Your task to perform on an android device: Go to eBay Image 0: 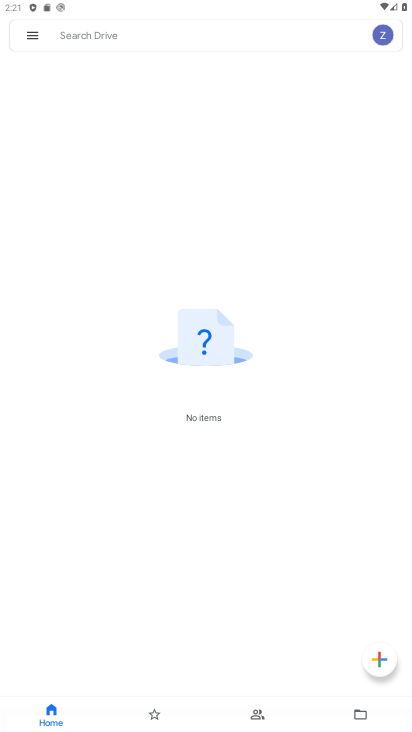
Step 0: press home button
Your task to perform on an android device: Go to eBay Image 1: 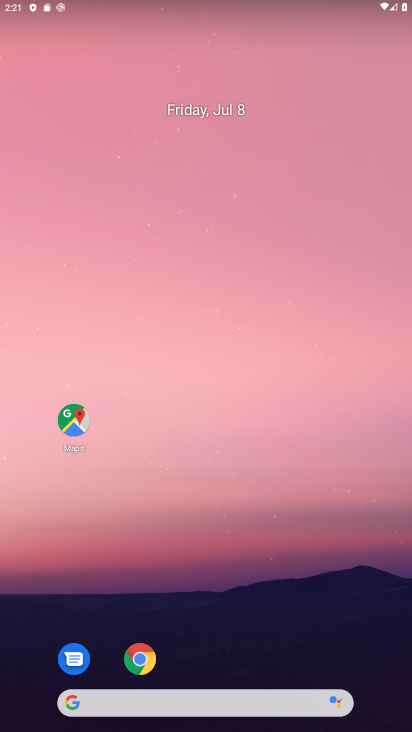
Step 1: click (133, 666)
Your task to perform on an android device: Go to eBay Image 2: 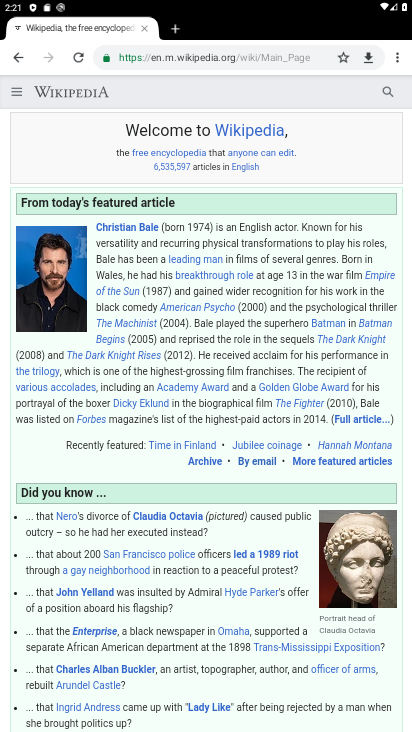
Step 2: click (134, 55)
Your task to perform on an android device: Go to eBay Image 3: 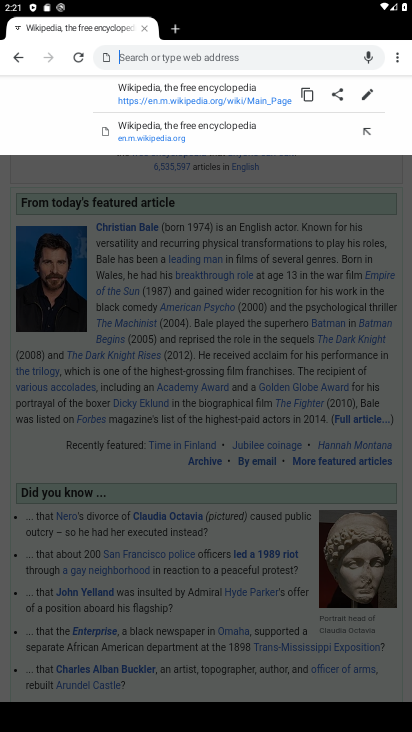
Step 3: type "ebay"
Your task to perform on an android device: Go to eBay Image 4: 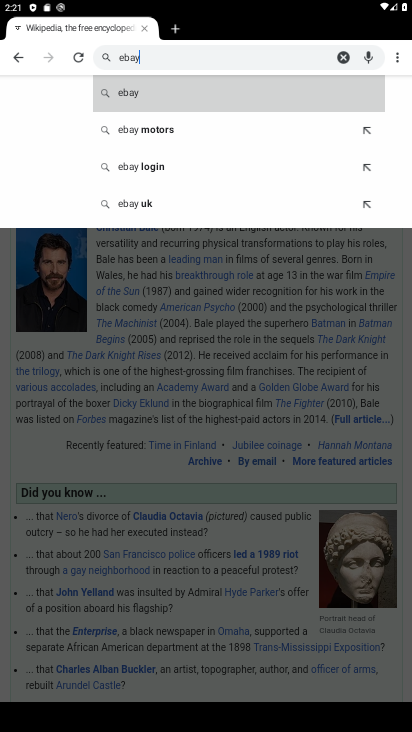
Step 4: click (137, 92)
Your task to perform on an android device: Go to eBay Image 5: 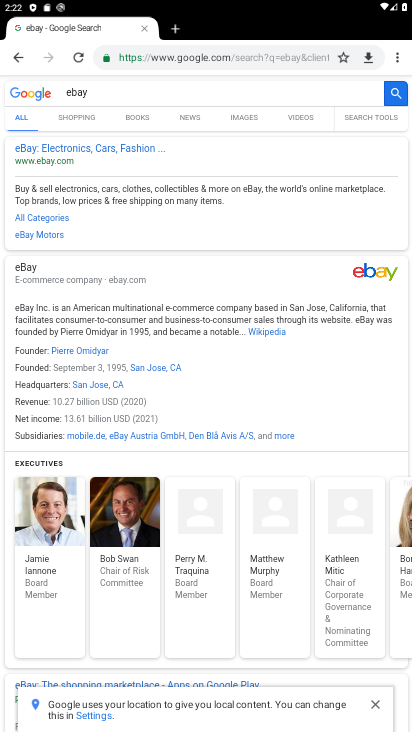
Step 5: click (129, 145)
Your task to perform on an android device: Go to eBay Image 6: 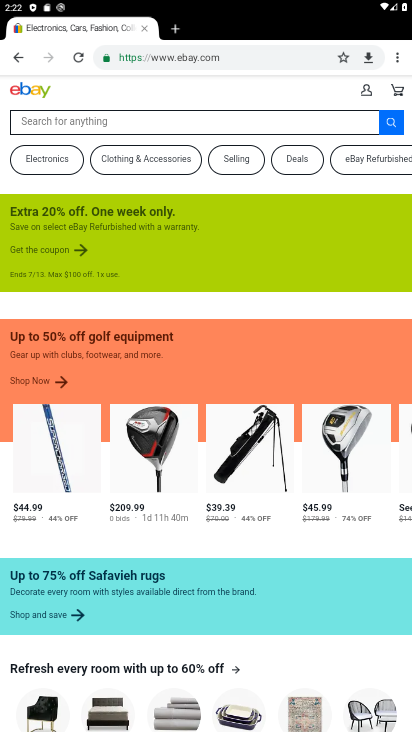
Step 6: task complete